Your task to perform on an android device: Go to CNN.com Image 0: 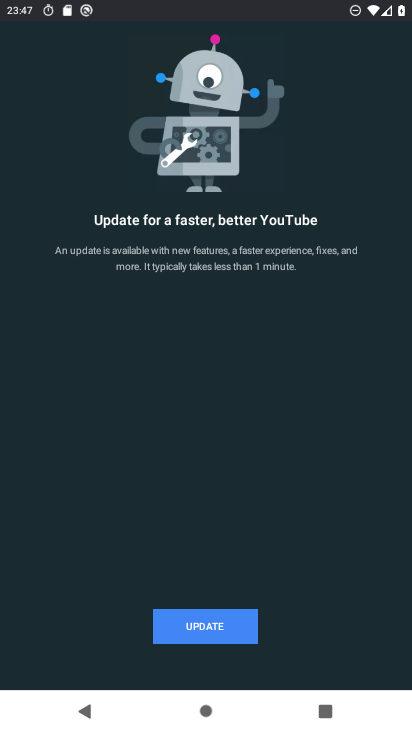
Step 0: press home button
Your task to perform on an android device: Go to CNN.com Image 1: 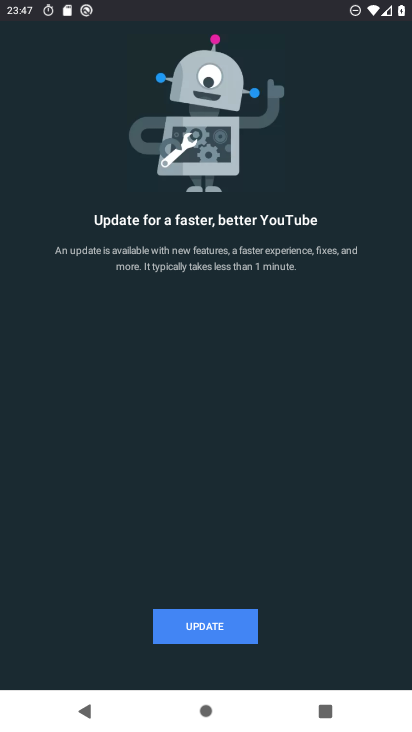
Step 1: press home button
Your task to perform on an android device: Go to CNN.com Image 2: 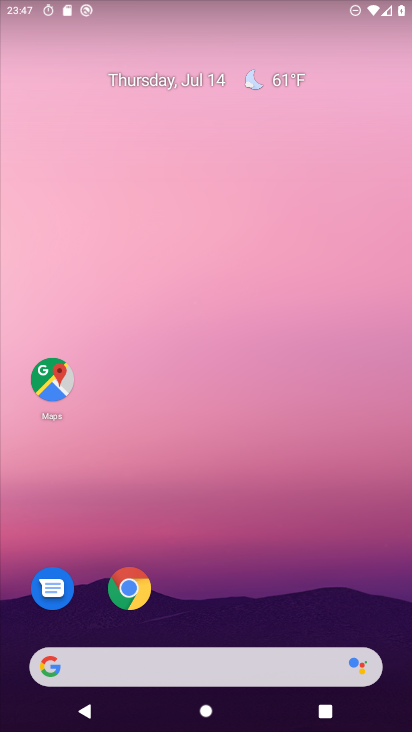
Step 2: click (133, 585)
Your task to perform on an android device: Go to CNN.com Image 3: 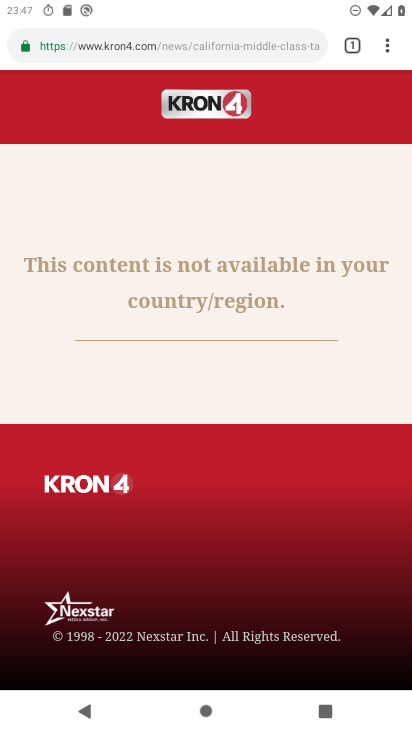
Step 3: click (192, 39)
Your task to perform on an android device: Go to CNN.com Image 4: 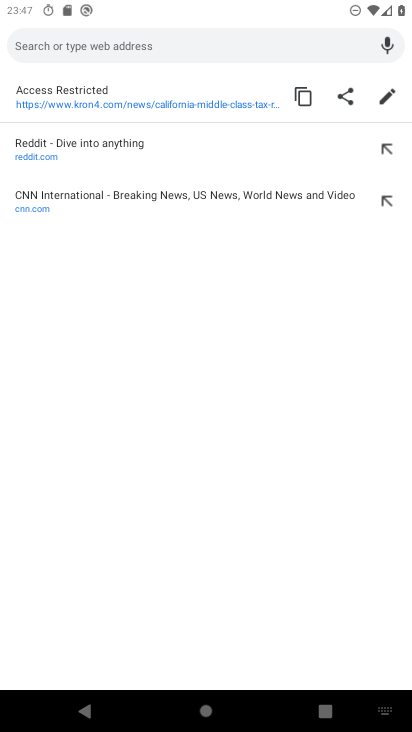
Step 4: type "CNN.com"
Your task to perform on an android device: Go to CNN.com Image 5: 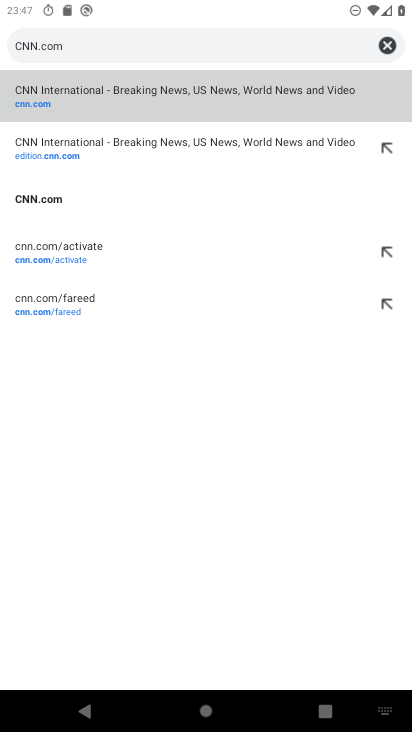
Step 5: click (125, 104)
Your task to perform on an android device: Go to CNN.com Image 6: 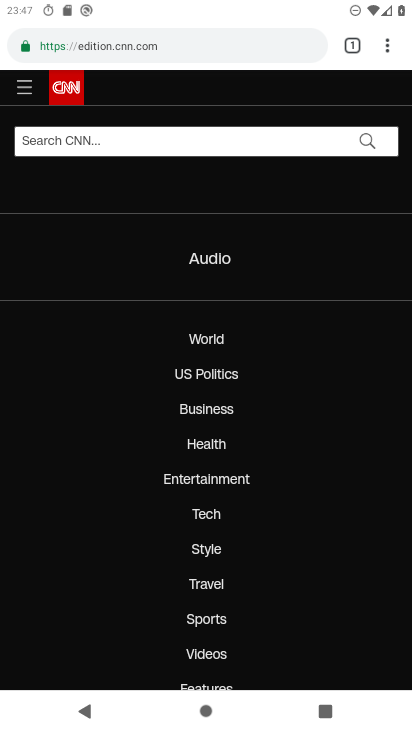
Step 6: task complete